Your task to perform on an android device: open a new tab in the chrome app Image 0: 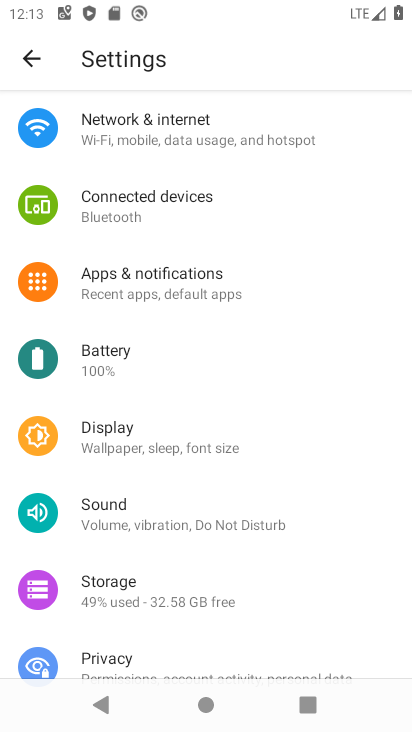
Step 0: drag from (157, 606) to (206, 229)
Your task to perform on an android device: open a new tab in the chrome app Image 1: 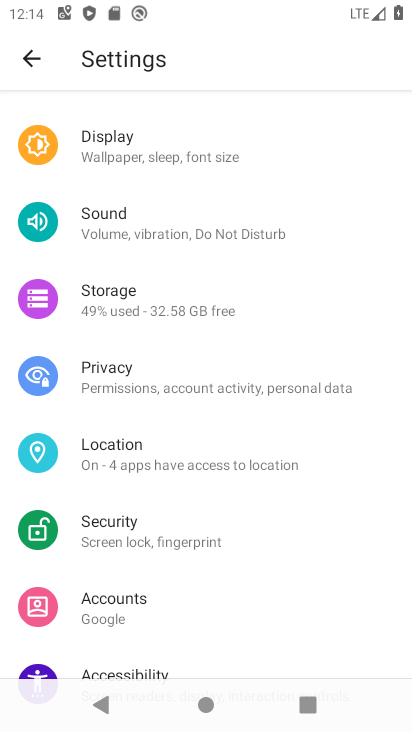
Step 1: press home button
Your task to perform on an android device: open a new tab in the chrome app Image 2: 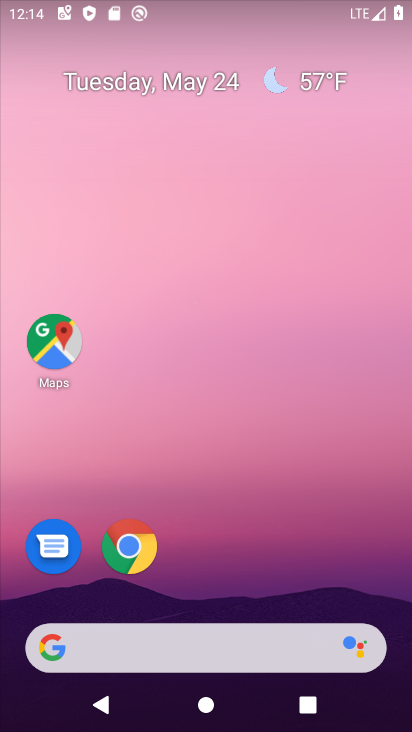
Step 2: drag from (197, 617) to (216, 149)
Your task to perform on an android device: open a new tab in the chrome app Image 3: 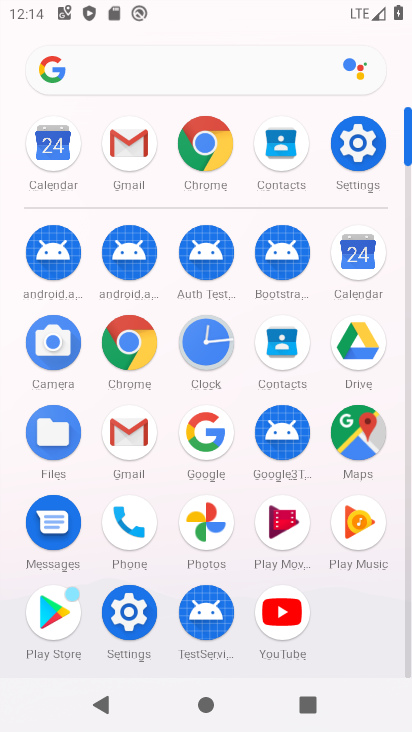
Step 3: drag from (195, 261) to (212, 131)
Your task to perform on an android device: open a new tab in the chrome app Image 4: 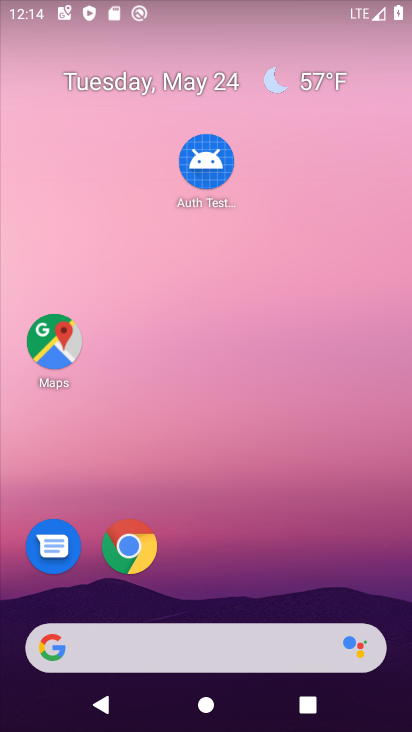
Step 4: click (98, 560)
Your task to perform on an android device: open a new tab in the chrome app Image 5: 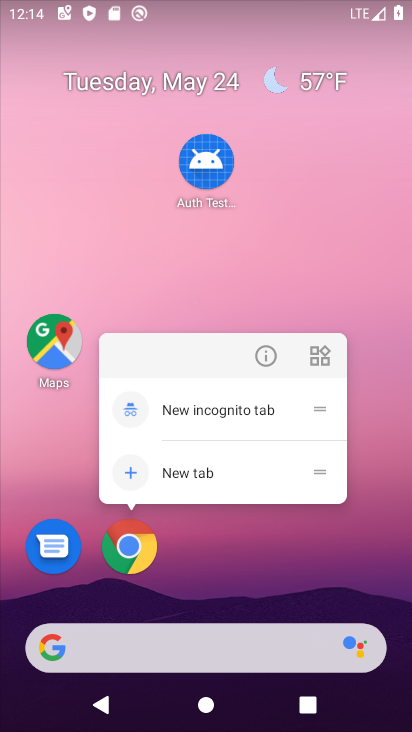
Step 5: click (267, 357)
Your task to perform on an android device: open a new tab in the chrome app Image 6: 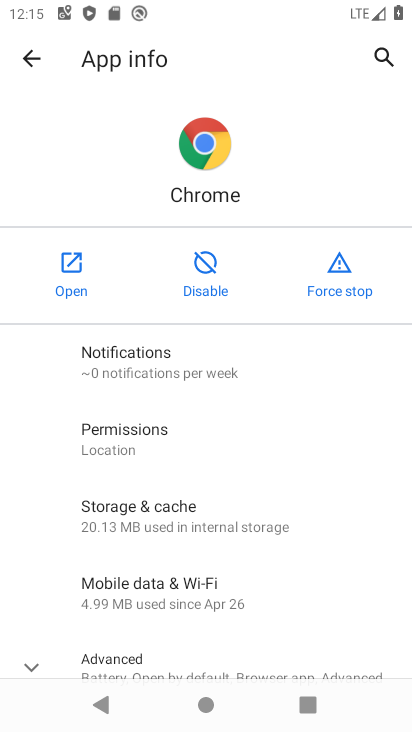
Step 6: click (62, 274)
Your task to perform on an android device: open a new tab in the chrome app Image 7: 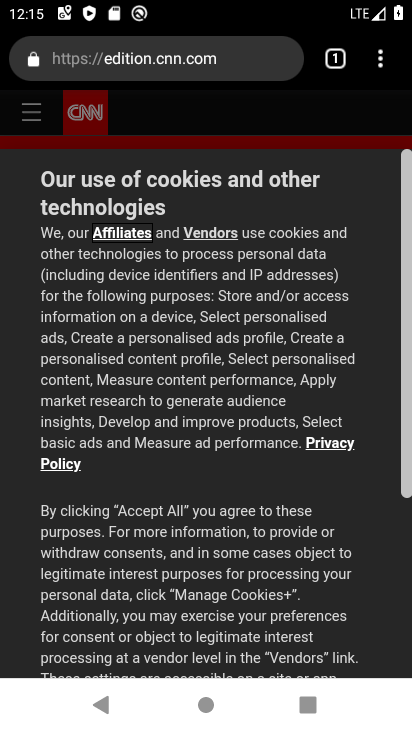
Step 7: click (335, 64)
Your task to perform on an android device: open a new tab in the chrome app Image 8: 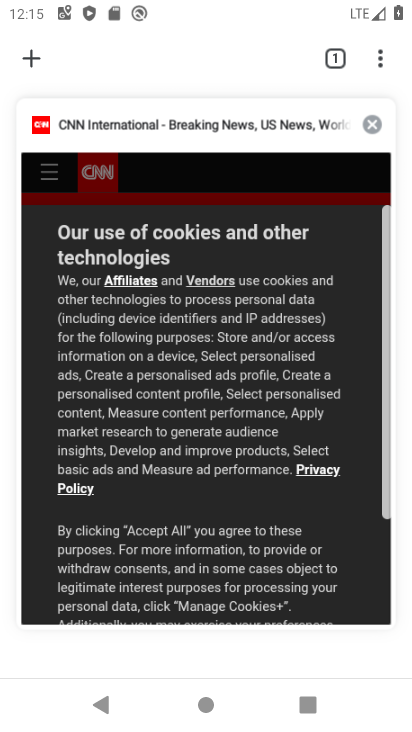
Step 8: click (25, 47)
Your task to perform on an android device: open a new tab in the chrome app Image 9: 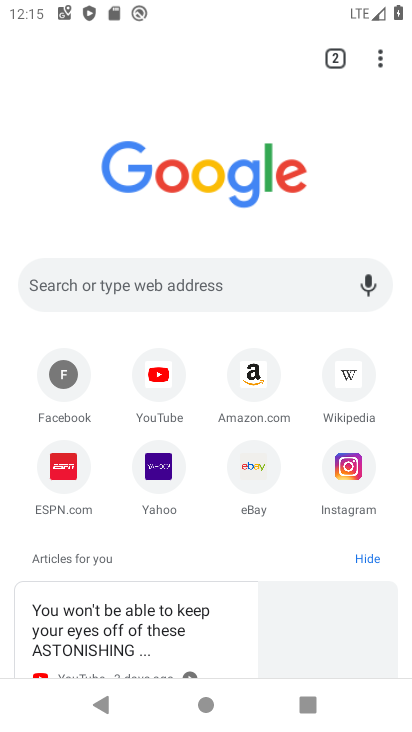
Step 9: task complete